Your task to perform on an android device: Open Reddit.com Image 0: 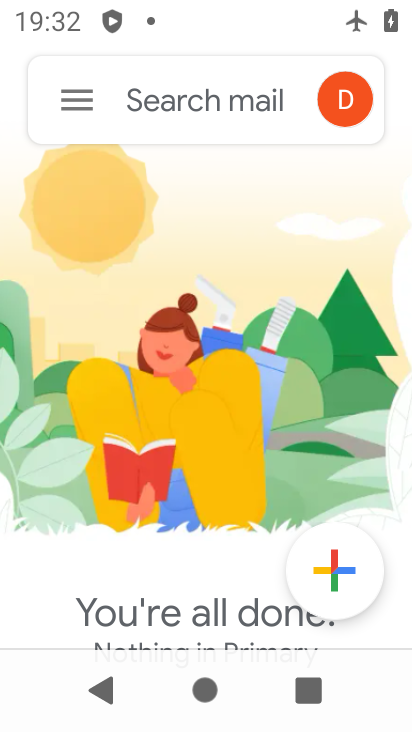
Step 0: press home button
Your task to perform on an android device: Open Reddit.com Image 1: 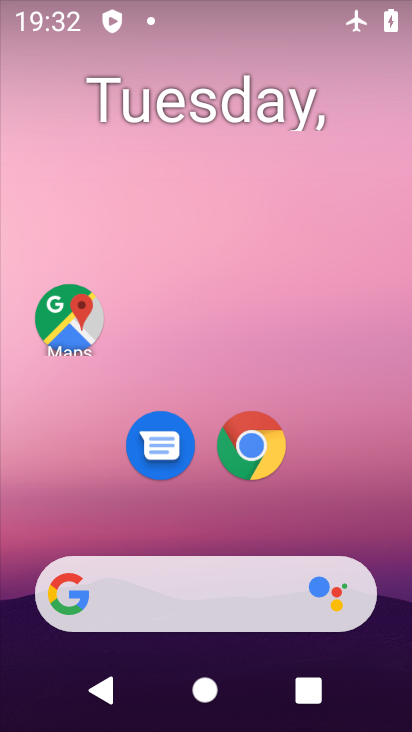
Step 1: click (237, 446)
Your task to perform on an android device: Open Reddit.com Image 2: 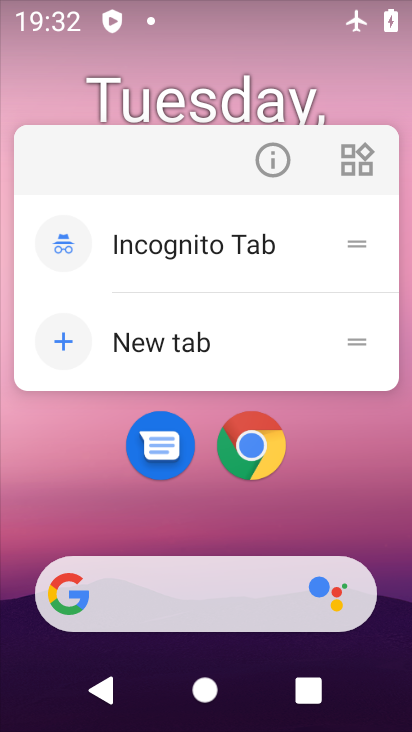
Step 2: click (257, 448)
Your task to perform on an android device: Open Reddit.com Image 3: 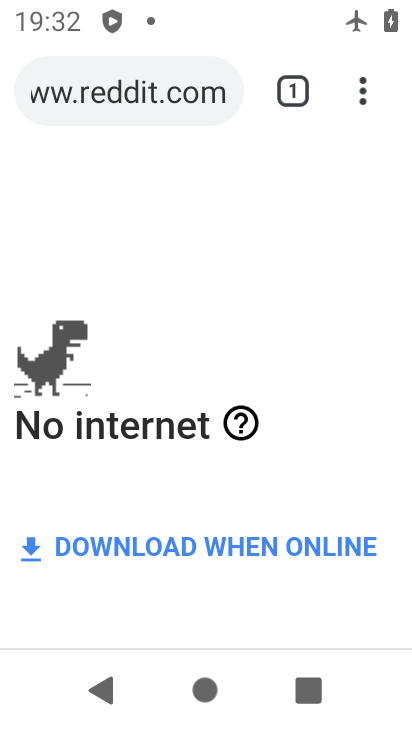
Step 3: press back button
Your task to perform on an android device: Open Reddit.com Image 4: 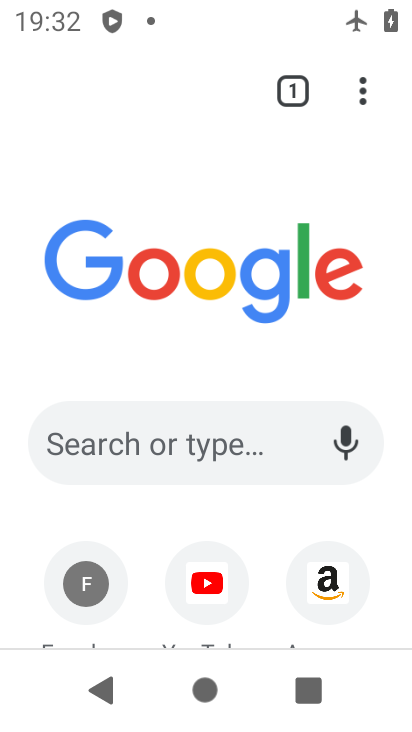
Step 4: press back button
Your task to perform on an android device: Open Reddit.com Image 5: 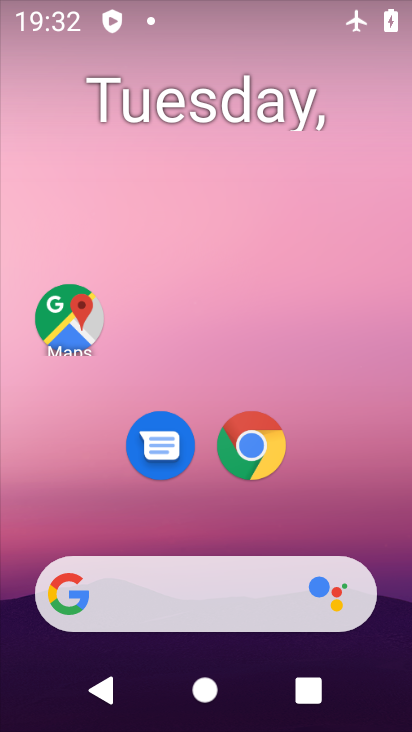
Step 5: drag from (187, 548) to (162, 89)
Your task to perform on an android device: Open Reddit.com Image 6: 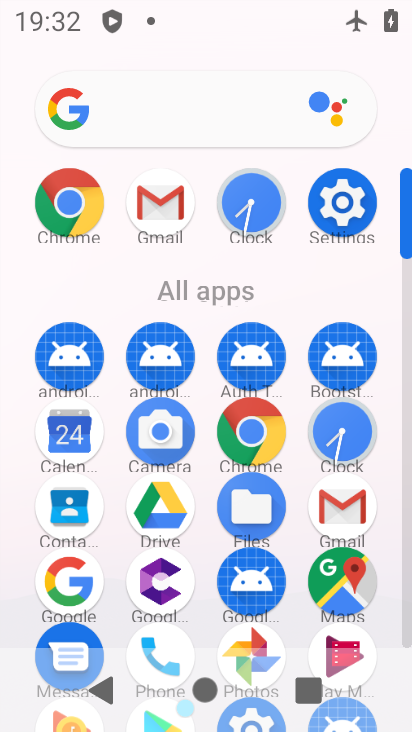
Step 6: click (316, 211)
Your task to perform on an android device: Open Reddit.com Image 7: 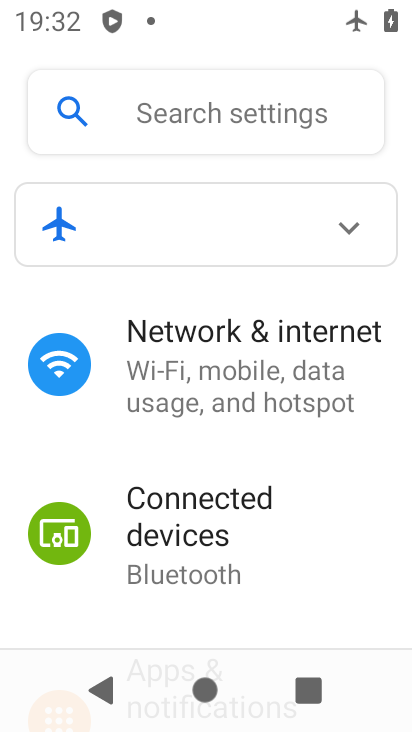
Step 7: click (341, 224)
Your task to perform on an android device: Open Reddit.com Image 8: 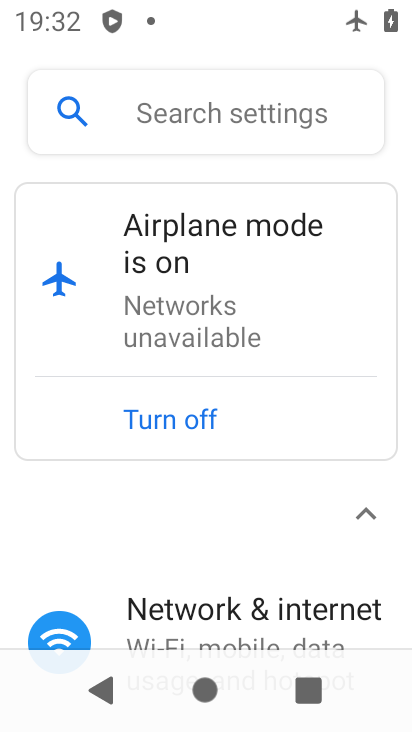
Step 8: click (149, 425)
Your task to perform on an android device: Open Reddit.com Image 9: 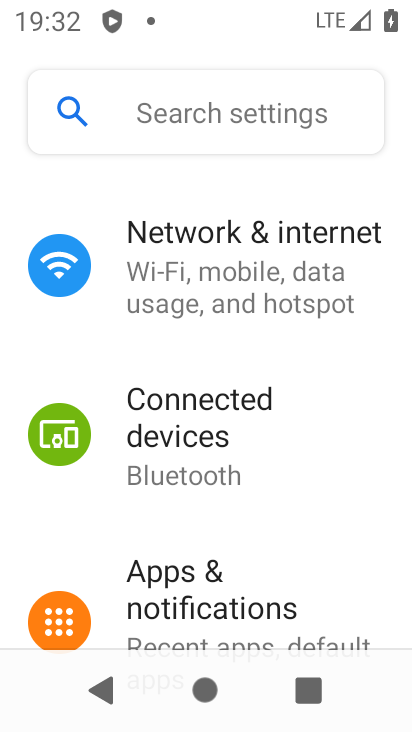
Step 9: press back button
Your task to perform on an android device: Open Reddit.com Image 10: 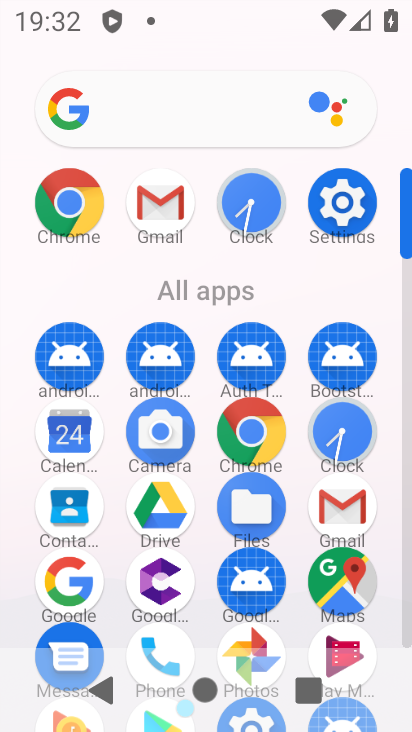
Step 10: click (255, 442)
Your task to perform on an android device: Open Reddit.com Image 11: 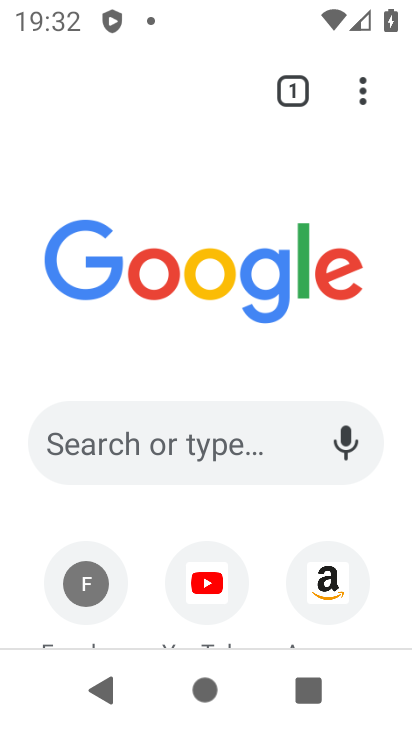
Step 11: click (168, 442)
Your task to perform on an android device: Open Reddit.com Image 12: 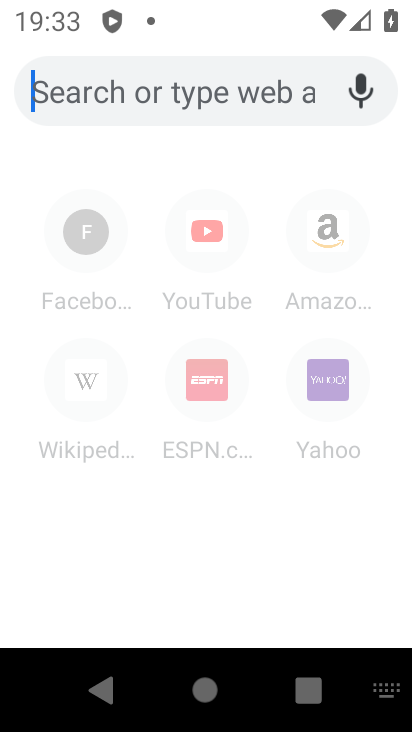
Step 12: type "www.reddit.com"
Your task to perform on an android device: Open Reddit.com Image 13: 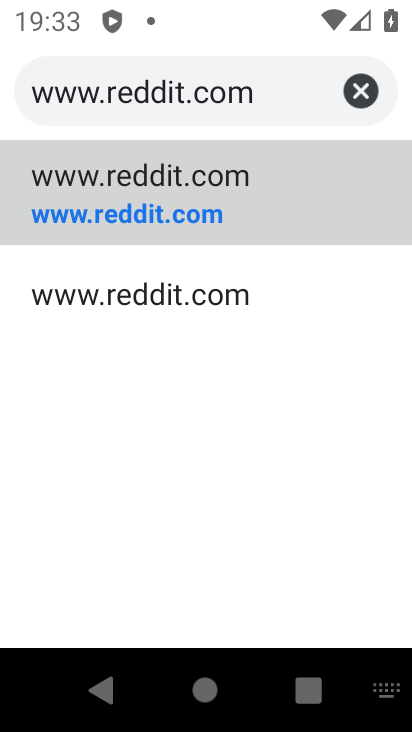
Step 13: click (159, 210)
Your task to perform on an android device: Open Reddit.com Image 14: 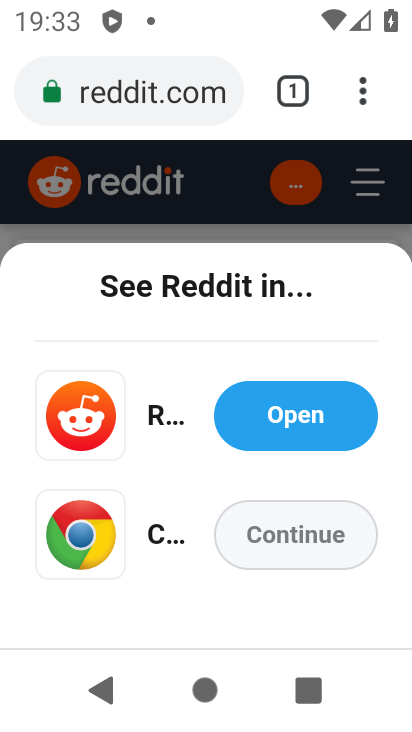
Step 14: click (309, 535)
Your task to perform on an android device: Open Reddit.com Image 15: 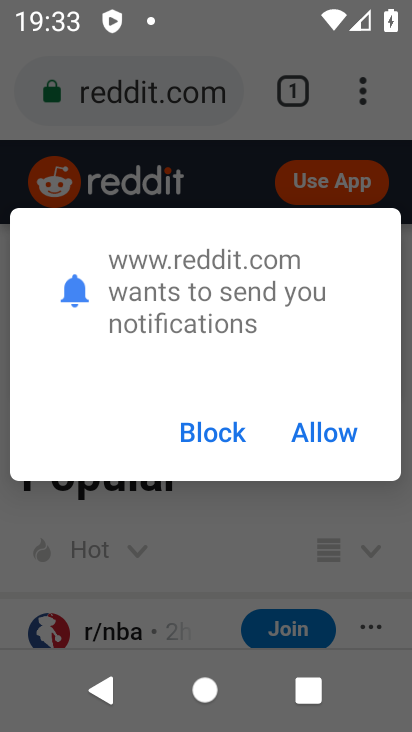
Step 15: click (335, 429)
Your task to perform on an android device: Open Reddit.com Image 16: 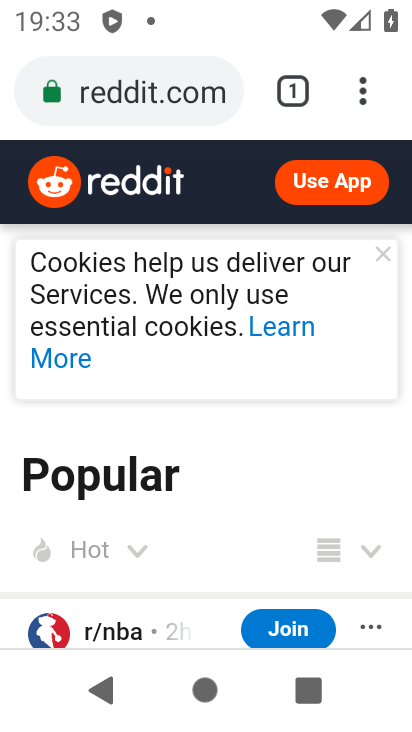
Step 16: task complete